Your task to perform on an android device: make emails show in primary in the gmail app Image 0: 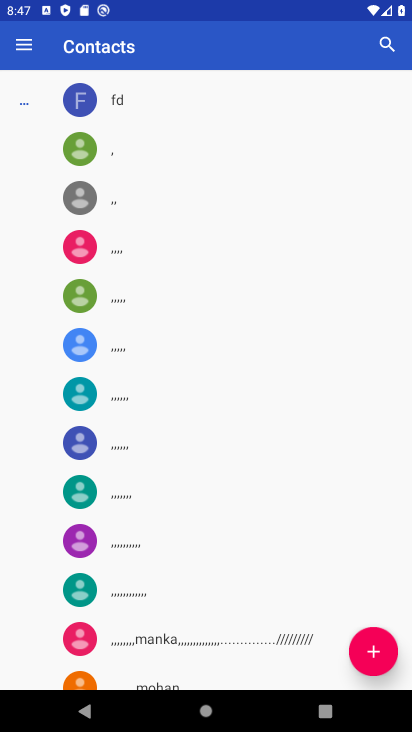
Step 0: press home button
Your task to perform on an android device: make emails show in primary in the gmail app Image 1: 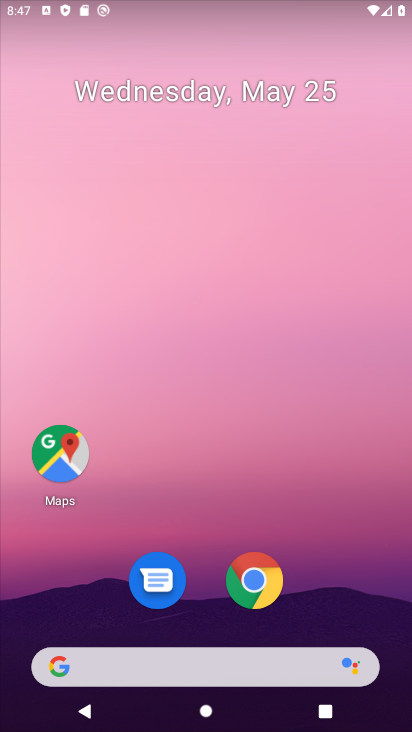
Step 1: drag from (54, 474) to (290, 102)
Your task to perform on an android device: make emails show in primary in the gmail app Image 2: 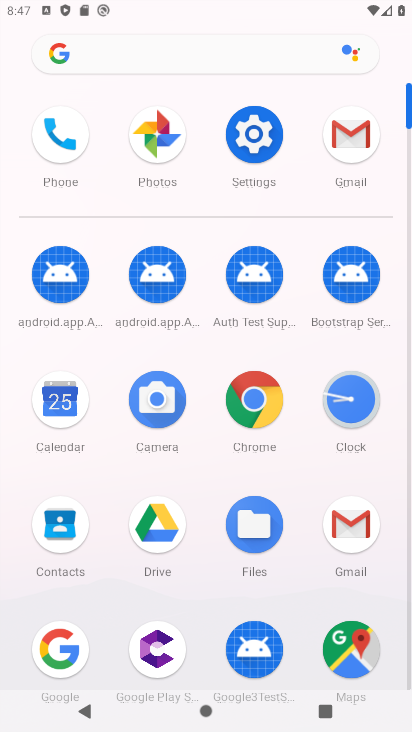
Step 2: click (341, 147)
Your task to perform on an android device: make emails show in primary in the gmail app Image 3: 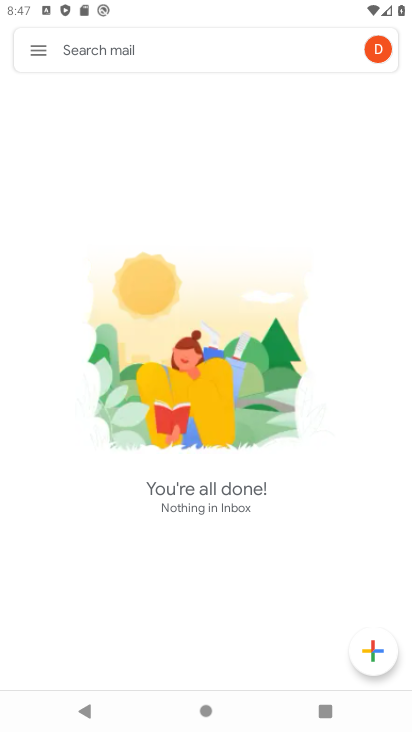
Step 3: click (15, 58)
Your task to perform on an android device: make emails show in primary in the gmail app Image 4: 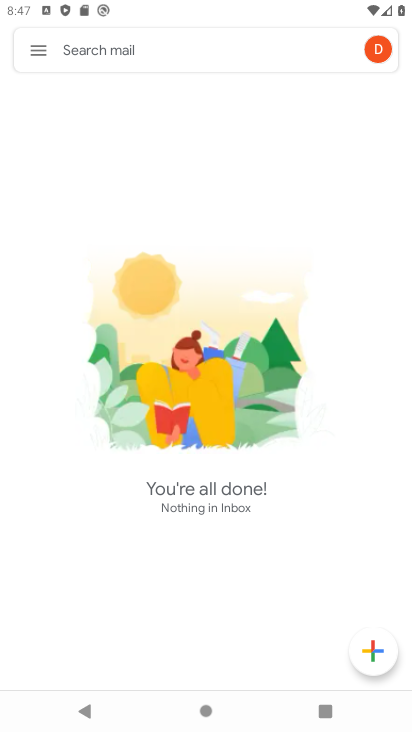
Step 4: click (45, 49)
Your task to perform on an android device: make emails show in primary in the gmail app Image 5: 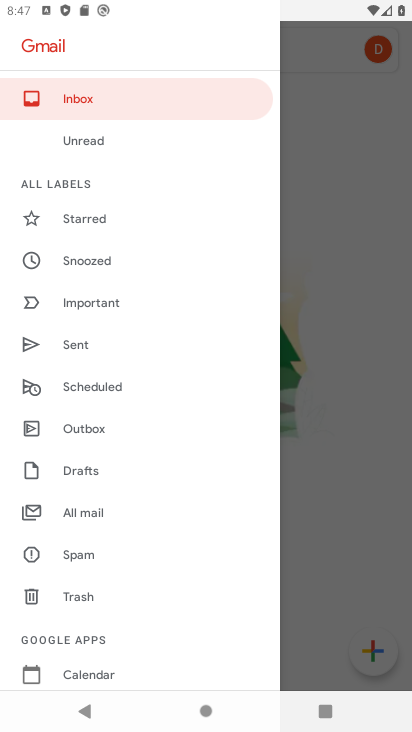
Step 5: click (100, 518)
Your task to perform on an android device: make emails show in primary in the gmail app Image 6: 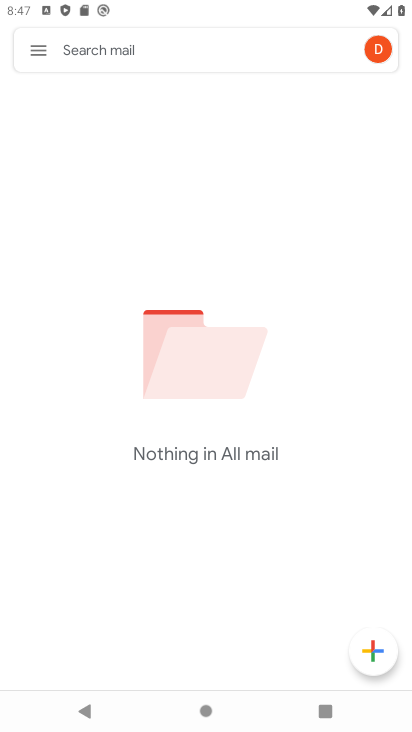
Step 6: task complete